Your task to perform on an android device: set an alarm Image 0: 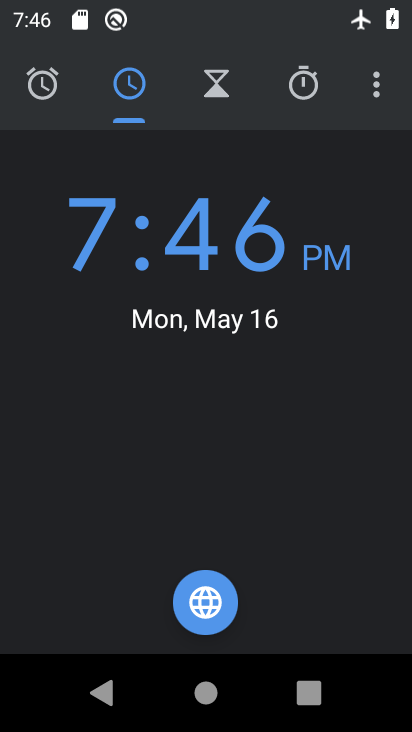
Step 0: press back button
Your task to perform on an android device: set an alarm Image 1: 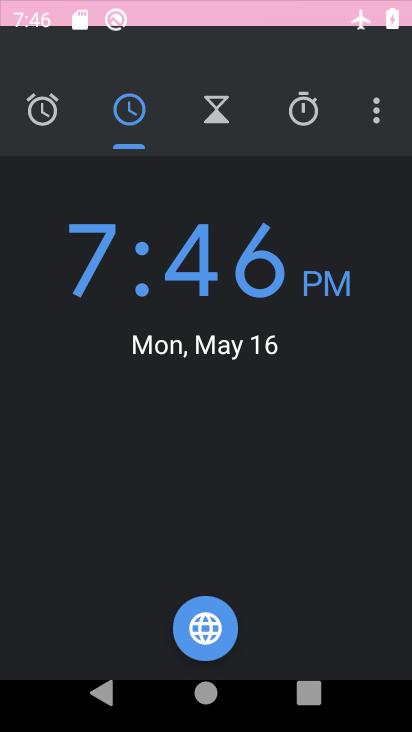
Step 1: press back button
Your task to perform on an android device: set an alarm Image 2: 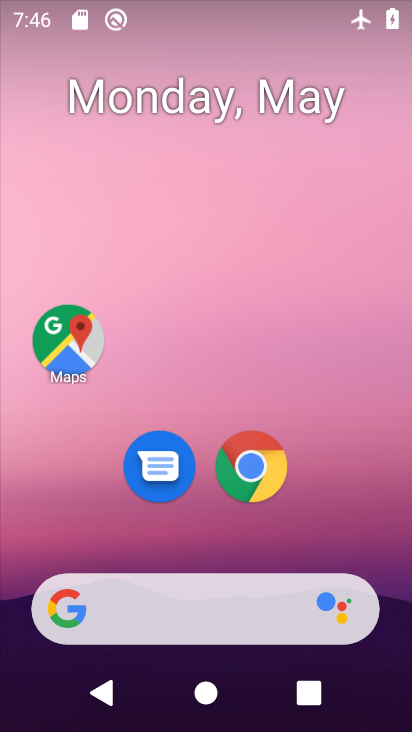
Step 2: drag from (315, 604) to (241, 42)
Your task to perform on an android device: set an alarm Image 3: 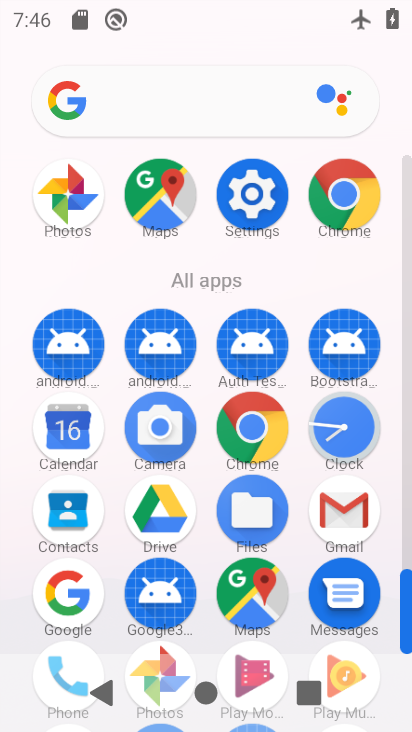
Step 3: drag from (190, 569) to (189, 169)
Your task to perform on an android device: set an alarm Image 4: 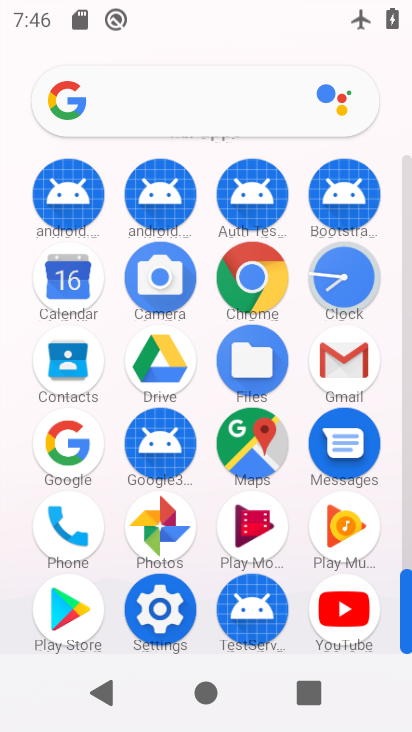
Step 4: click (344, 431)
Your task to perform on an android device: set an alarm Image 5: 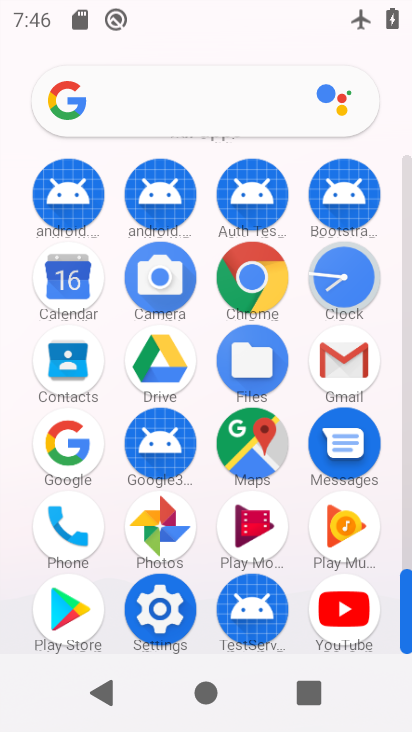
Step 5: click (344, 431)
Your task to perform on an android device: set an alarm Image 6: 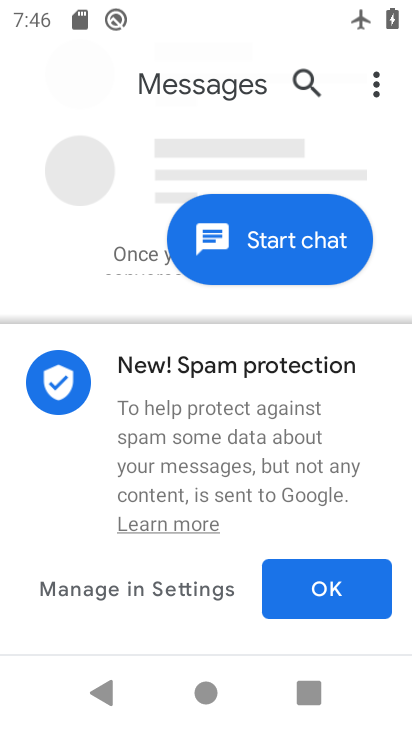
Step 6: click (343, 602)
Your task to perform on an android device: set an alarm Image 7: 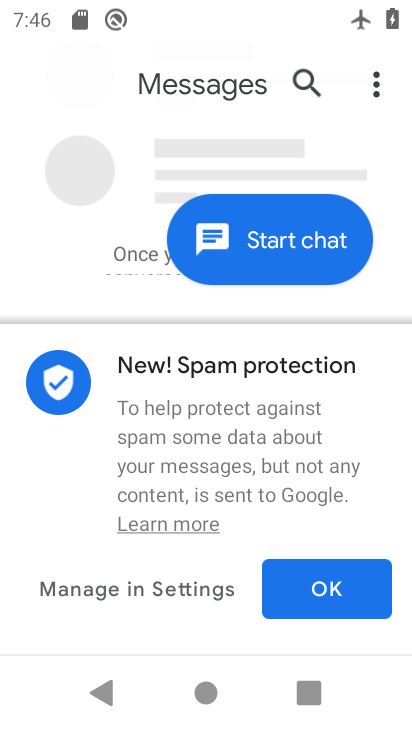
Step 7: click (343, 602)
Your task to perform on an android device: set an alarm Image 8: 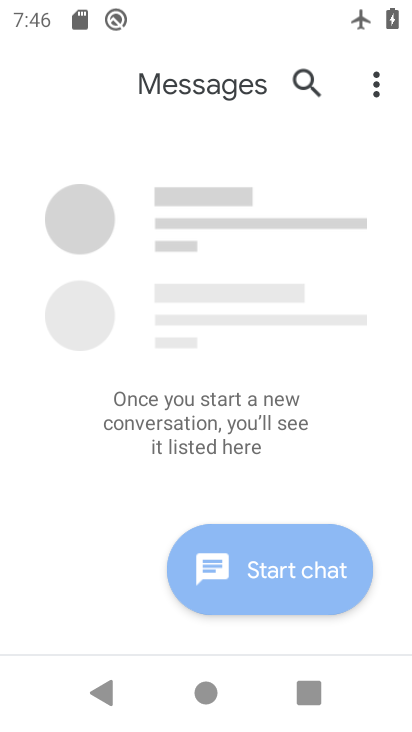
Step 8: click (343, 602)
Your task to perform on an android device: set an alarm Image 9: 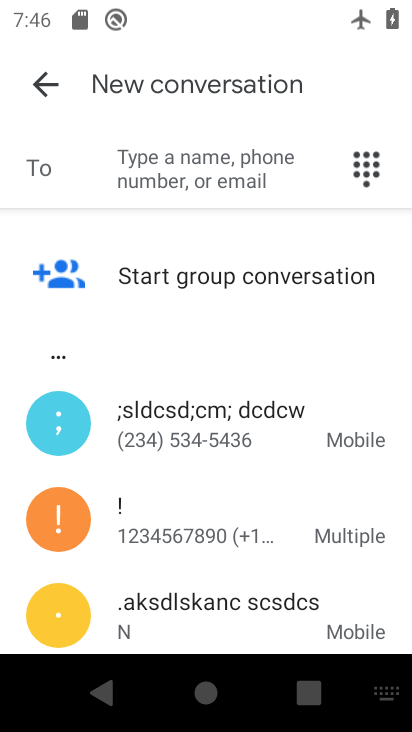
Step 9: press home button
Your task to perform on an android device: set an alarm Image 10: 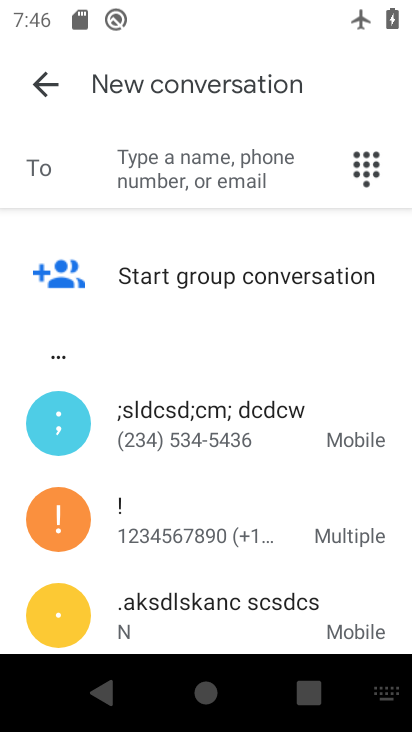
Step 10: press home button
Your task to perform on an android device: set an alarm Image 11: 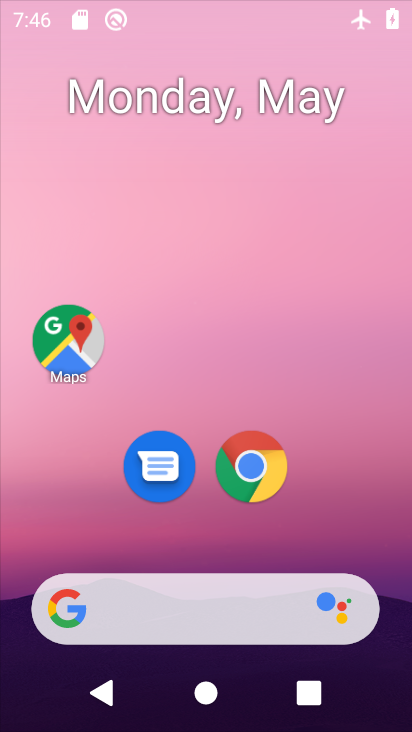
Step 11: press home button
Your task to perform on an android device: set an alarm Image 12: 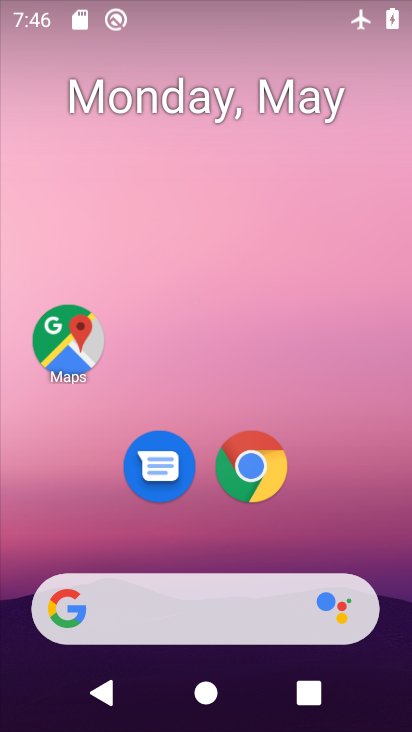
Step 12: drag from (269, 535) to (143, 48)
Your task to perform on an android device: set an alarm Image 13: 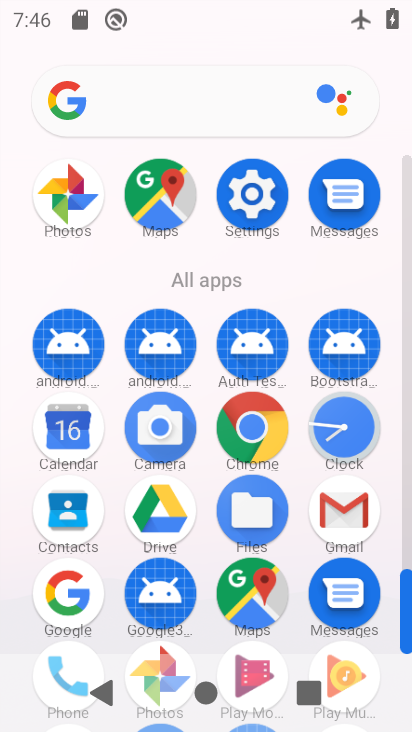
Step 13: click (354, 426)
Your task to perform on an android device: set an alarm Image 14: 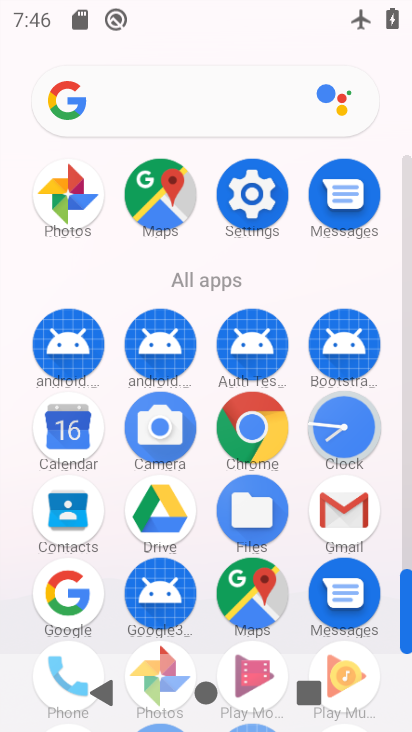
Step 14: click (354, 426)
Your task to perform on an android device: set an alarm Image 15: 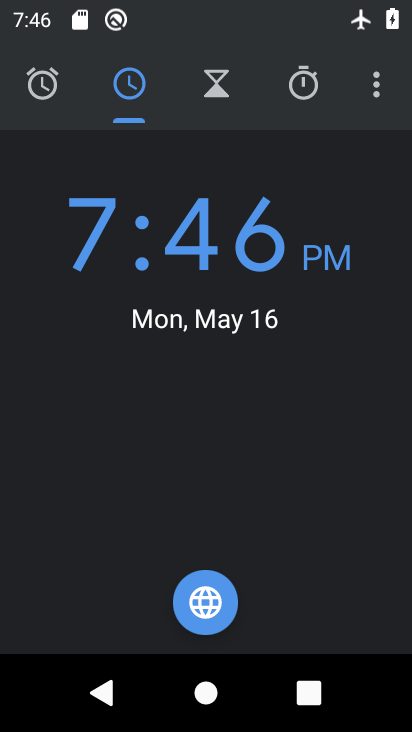
Step 15: click (351, 429)
Your task to perform on an android device: set an alarm Image 16: 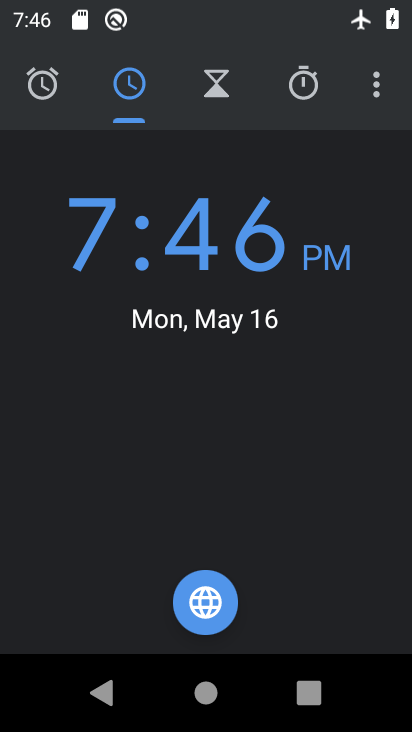
Step 16: click (44, 81)
Your task to perform on an android device: set an alarm Image 17: 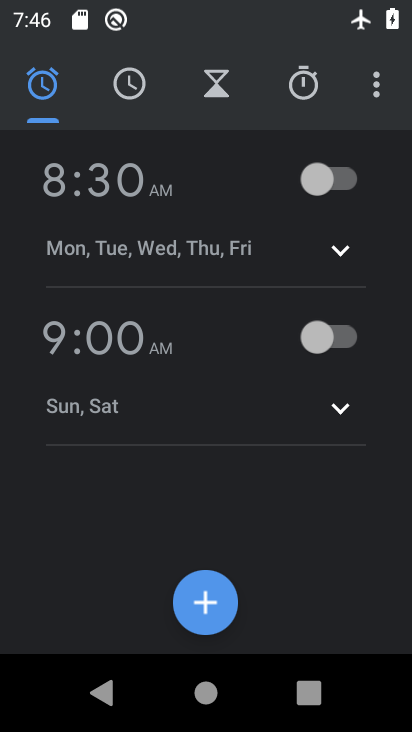
Step 17: click (311, 185)
Your task to perform on an android device: set an alarm Image 18: 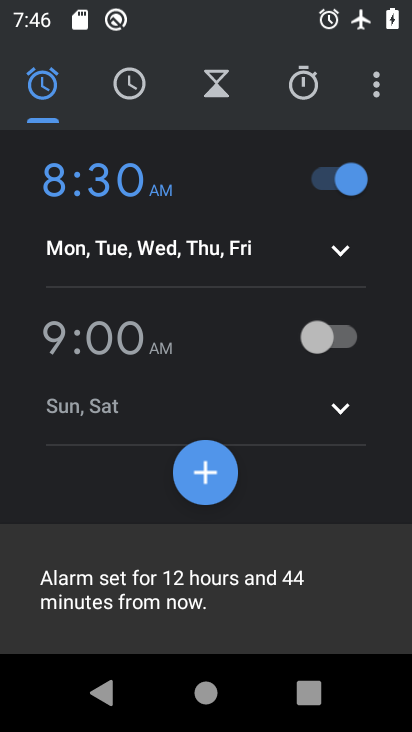
Step 18: task complete